Your task to perform on an android device: Open the stopwatch Image 0: 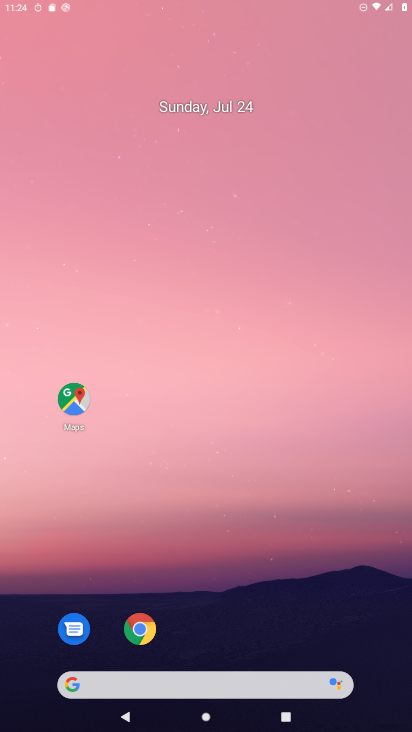
Step 0: press home button
Your task to perform on an android device: Open the stopwatch Image 1: 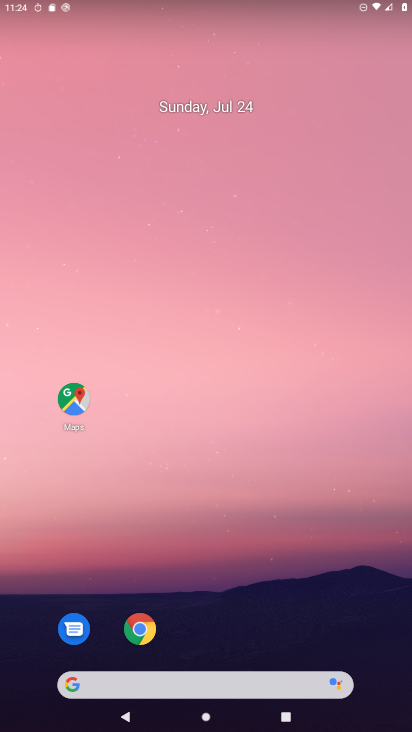
Step 1: drag from (232, 585) to (293, 211)
Your task to perform on an android device: Open the stopwatch Image 2: 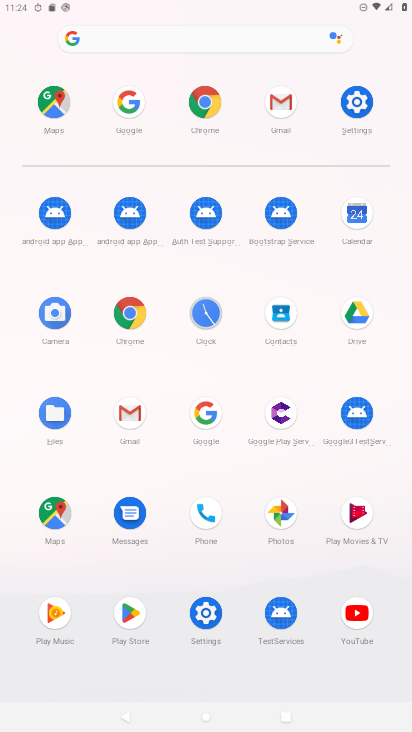
Step 2: click (204, 328)
Your task to perform on an android device: Open the stopwatch Image 3: 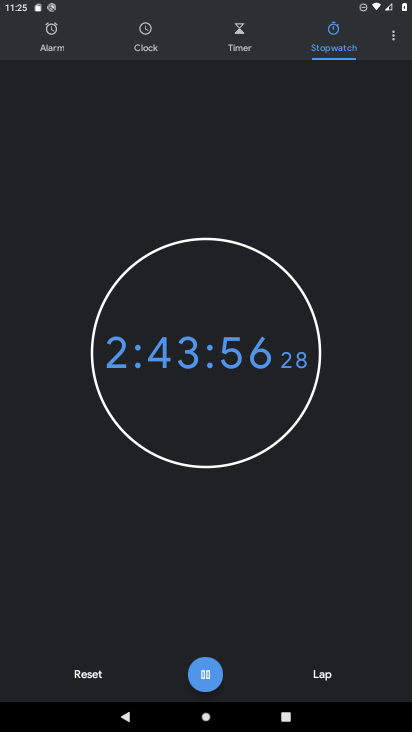
Step 3: task complete